Your task to perform on an android device: Show me popular videos on Youtube Image 0: 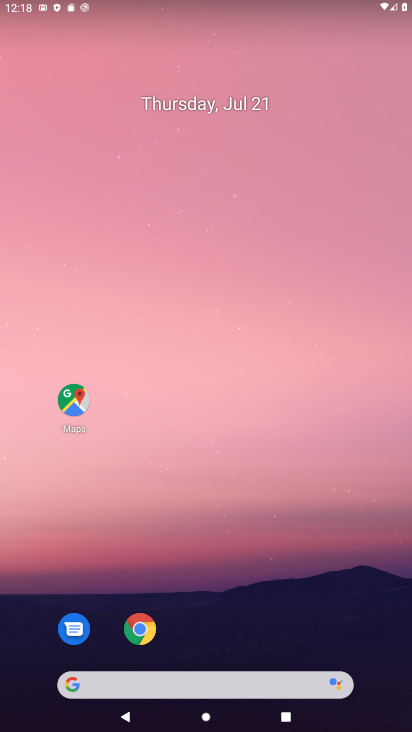
Step 0: drag from (354, 645) to (274, 167)
Your task to perform on an android device: Show me popular videos on Youtube Image 1: 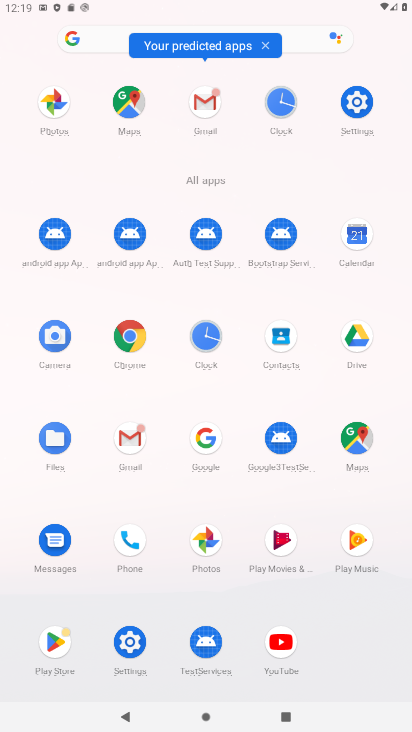
Step 1: click (274, 637)
Your task to perform on an android device: Show me popular videos on Youtube Image 2: 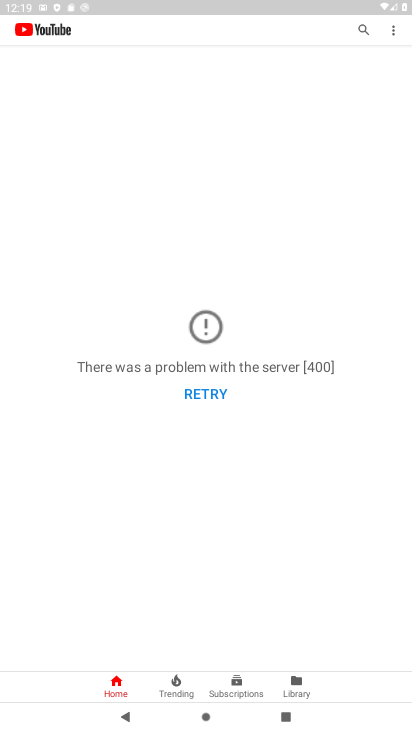
Step 2: click (173, 685)
Your task to perform on an android device: Show me popular videos on Youtube Image 3: 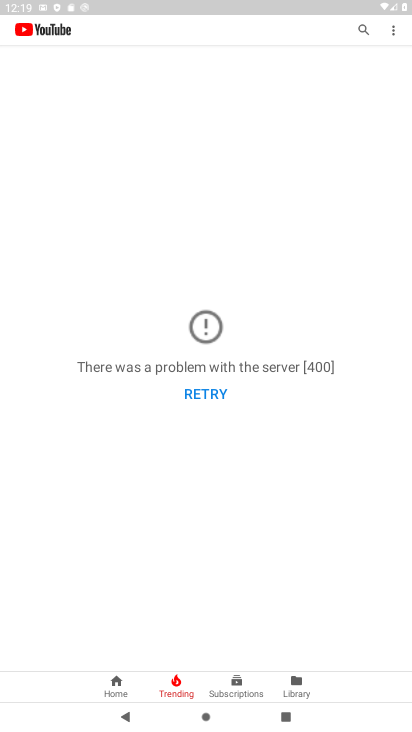
Step 3: task complete